Your task to perform on an android device: Clear all items from cart on costco.com. Add "usb-c to usb-a" to the cart on costco.com Image 0: 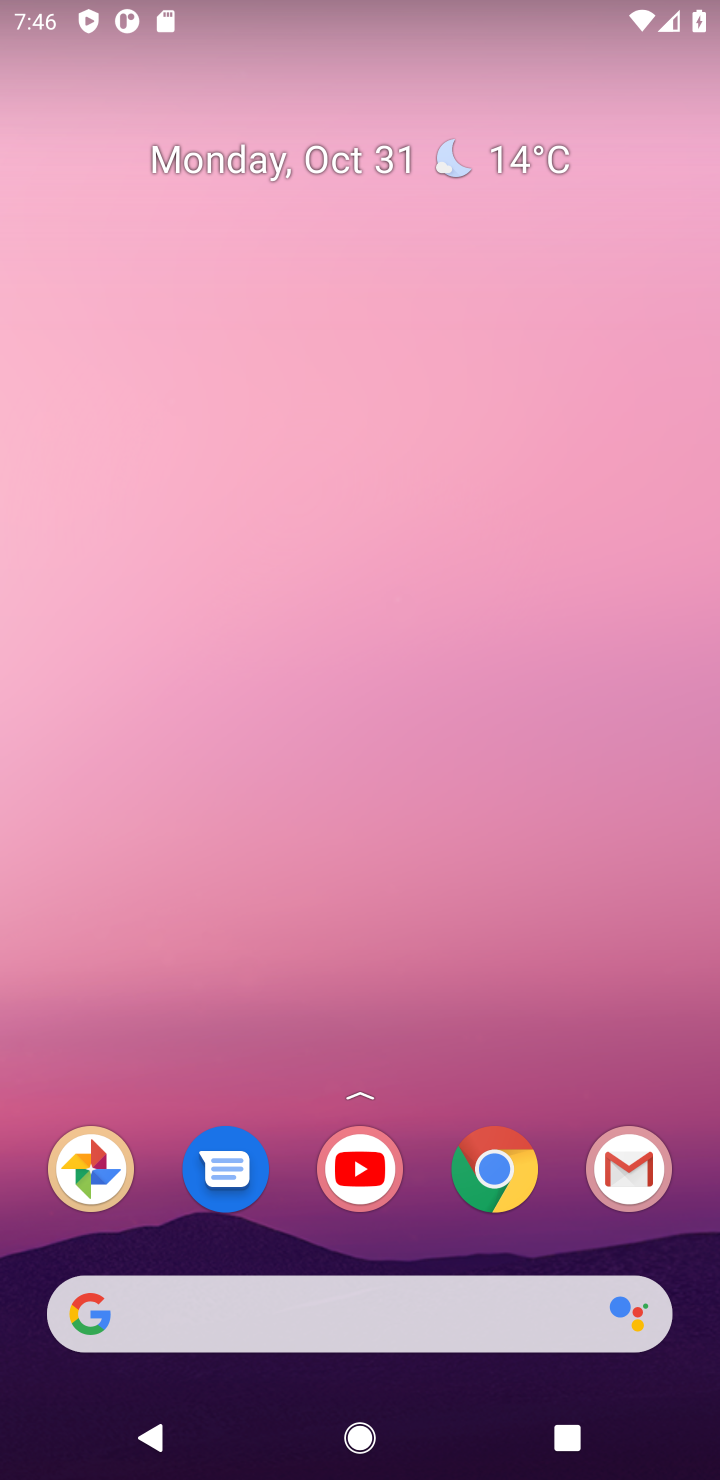
Step 0: drag from (293, 1246) to (314, 381)
Your task to perform on an android device: Clear all items from cart on costco.com. Add "usb-c to usb-a" to the cart on costco.com Image 1: 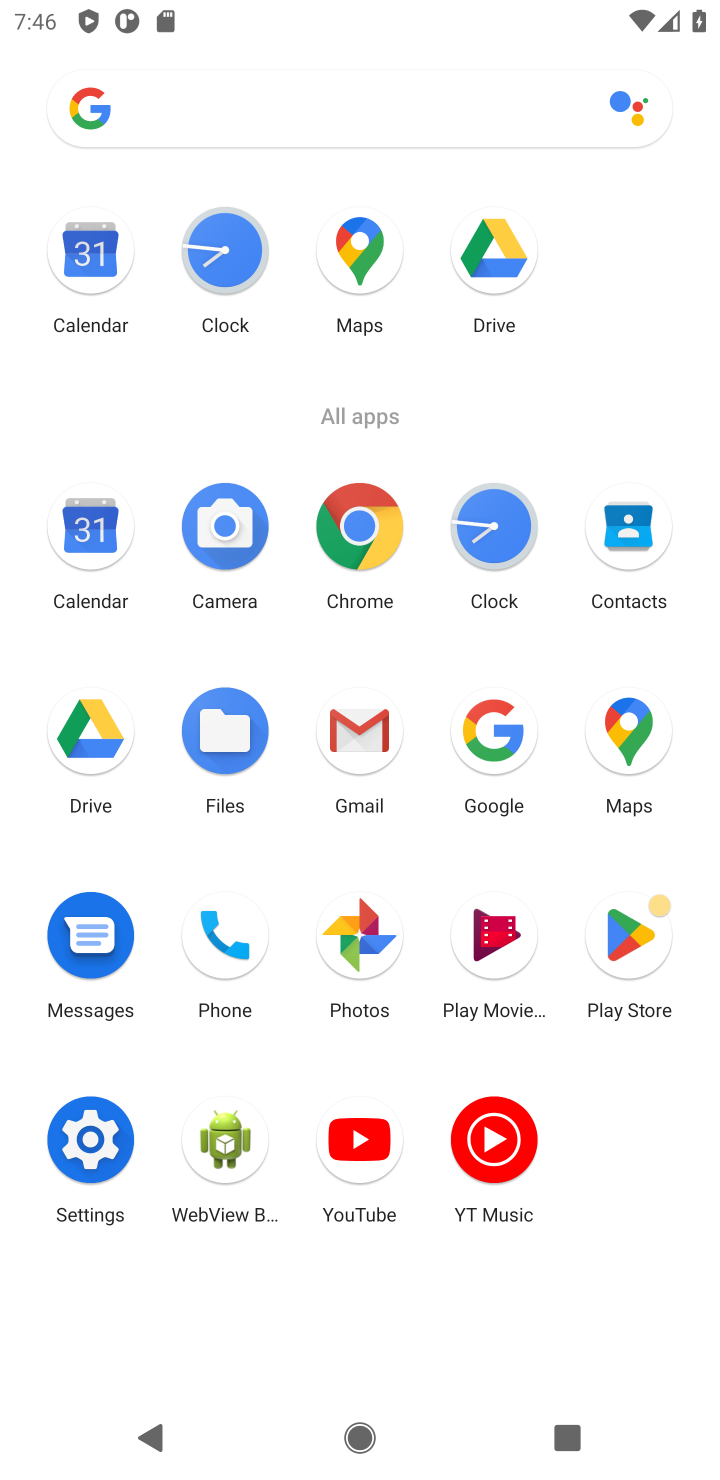
Step 1: click (485, 722)
Your task to perform on an android device: Clear all items from cart on costco.com. Add "usb-c to usb-a" to the cart on costco.com Image 2: 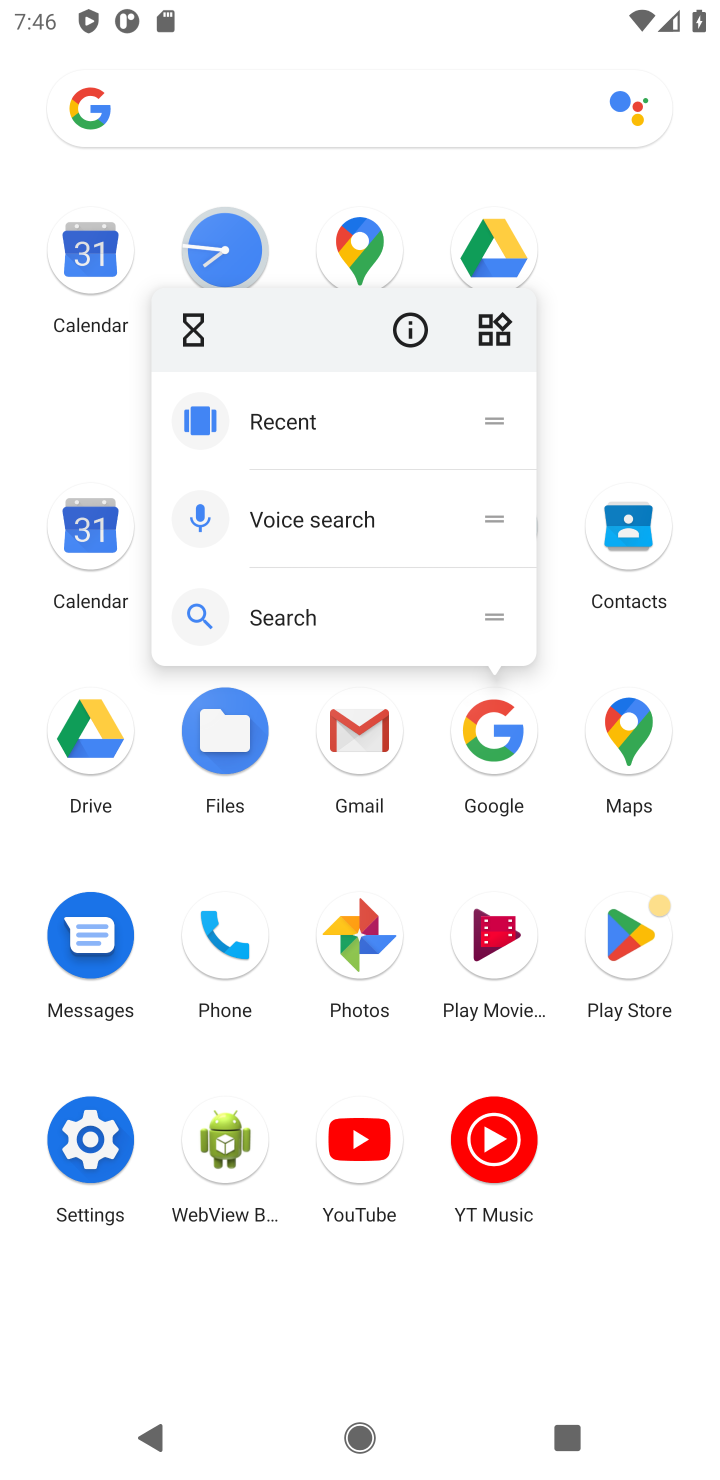
Step 2: click (485, 722)
Your task to perform on an android device: Clear all items from cart on costco.com. Add "usb-c to usb-a" to the cart on costco.com Image 3: 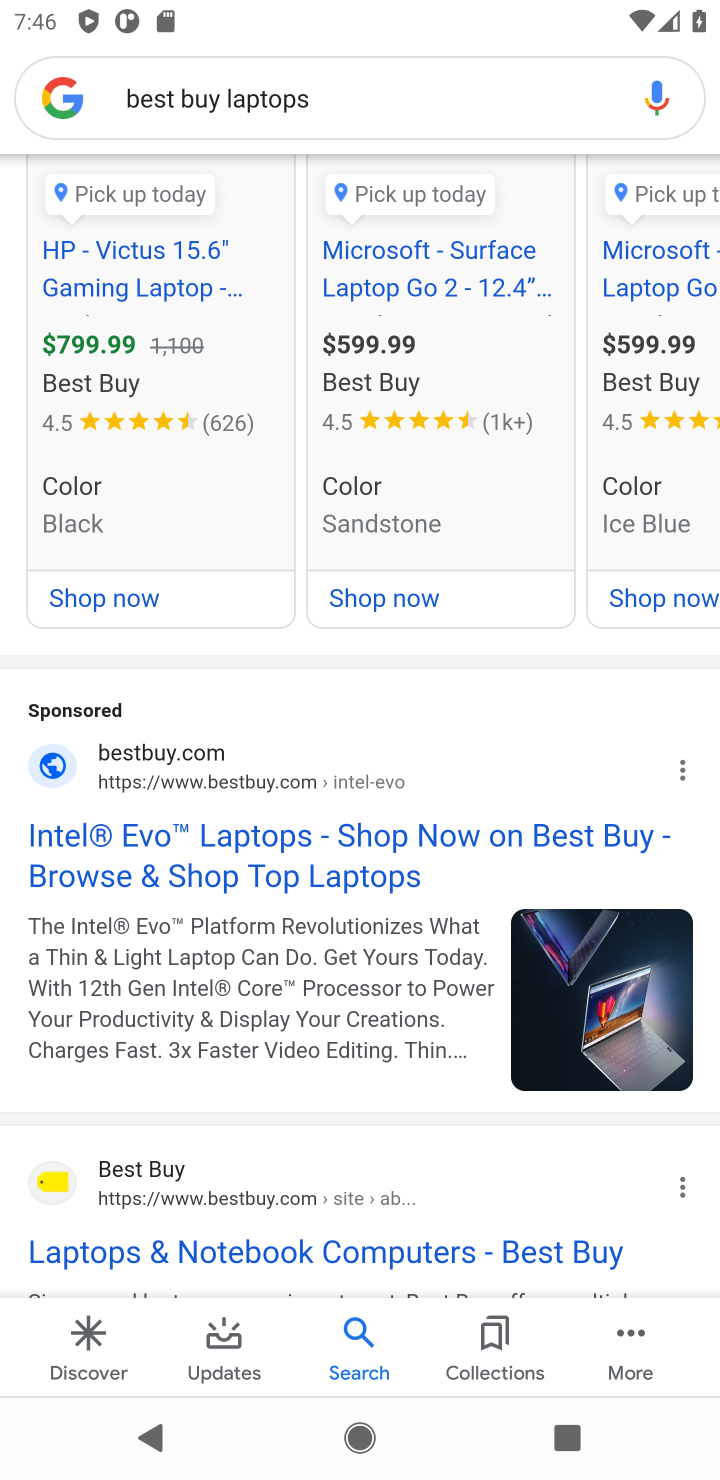
Step 3: click (319, 80)
Your task to perform on an android device: Clear all items from cart on costco.com. Add "usb-c to usb-a" to the cart on costco.com Image 4: 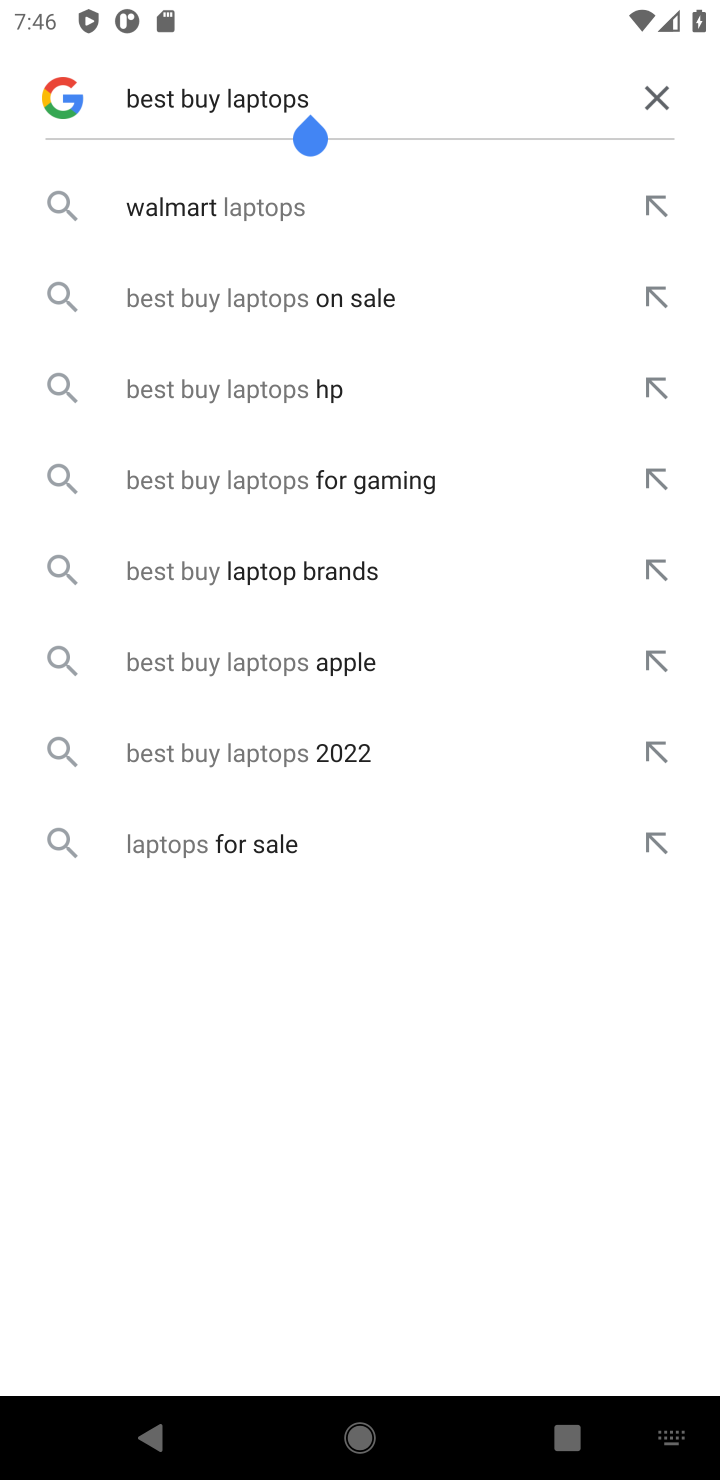
Step 4: click (644, 82)
Your task to perform on an android device: Clear all items from cart on costco.com. Add "usb-c to usb-a" to the cart on costco.com Image 5: 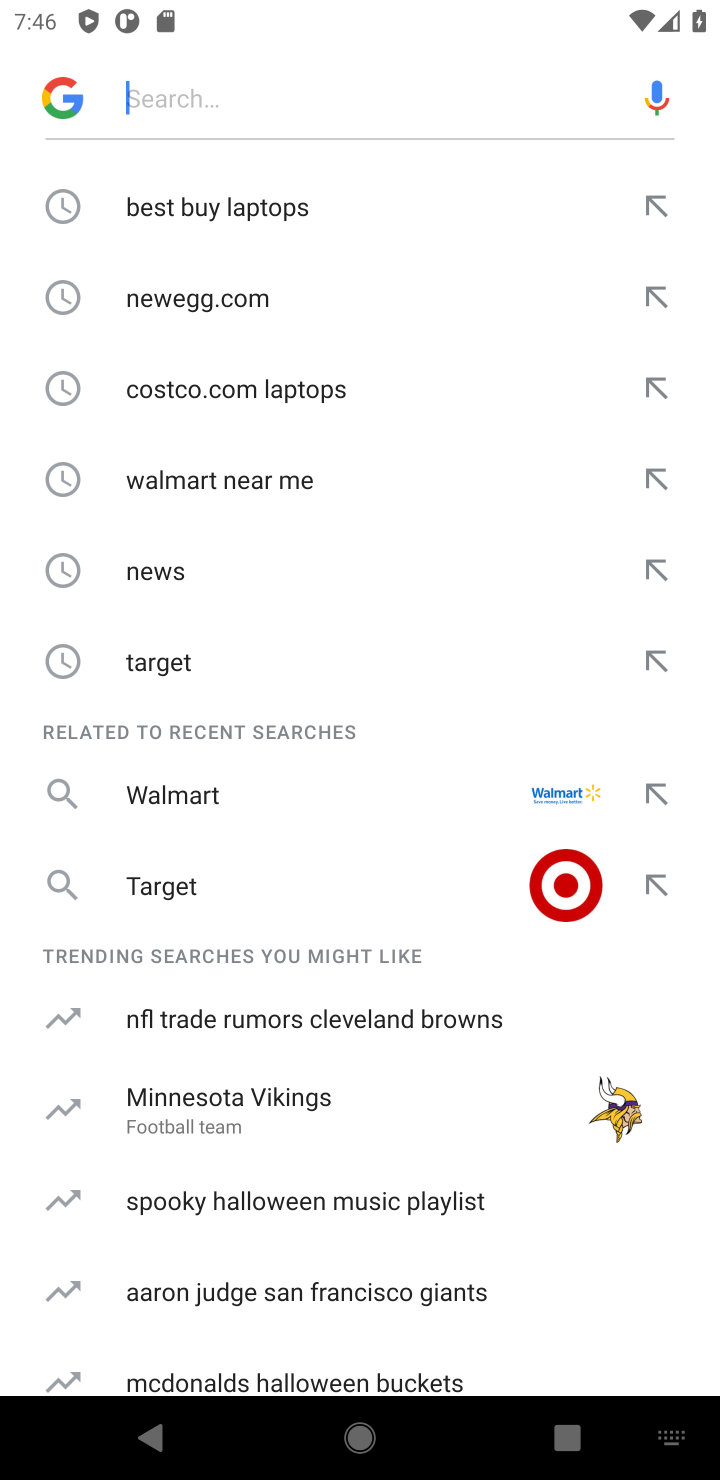
Step 5: click (226, 404)
Your task to perform on an android device: Clear all items from cart on costco.com. Add "usb-c to usb-a" to the cart on costco.com Image 6: 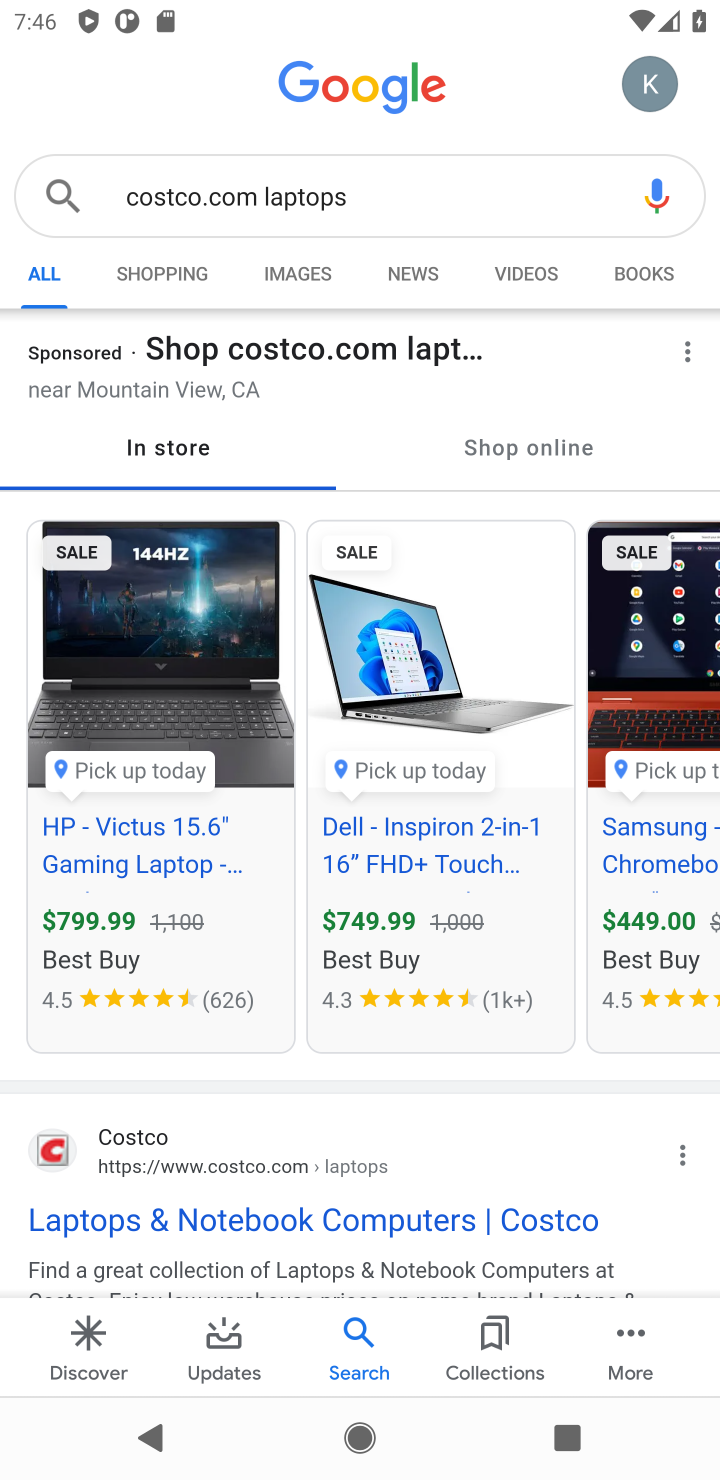
Step 6: click (356, 163)
Your task to perform on an android device: Clear all items from cart on costco.com. Add "usb-c to usb-a" to the cart on costco.com Image 7: 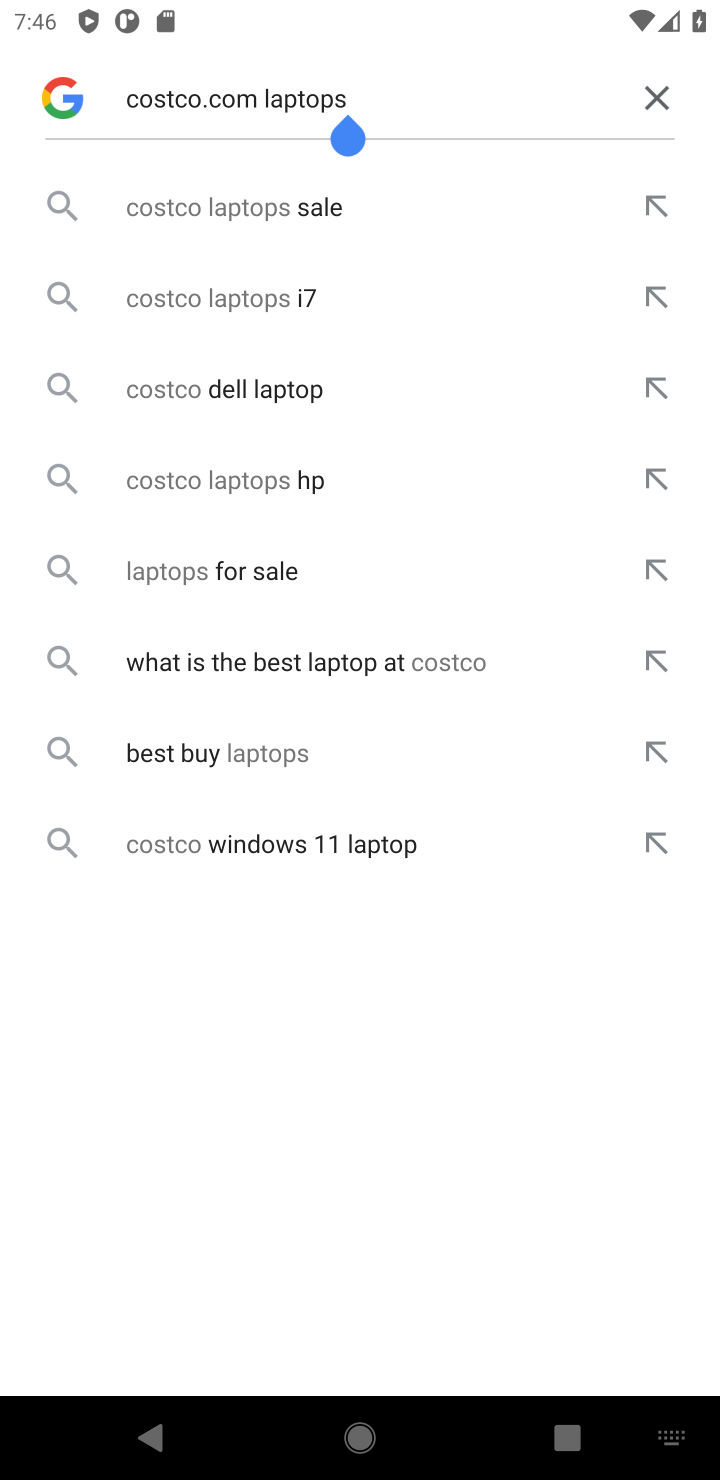
Step 7: click (653, 103)
Your task to perform on an android device: Clear all items from cart on costco.com. Add "usb-c to usb-a" to the cart on costco.com Image 8: 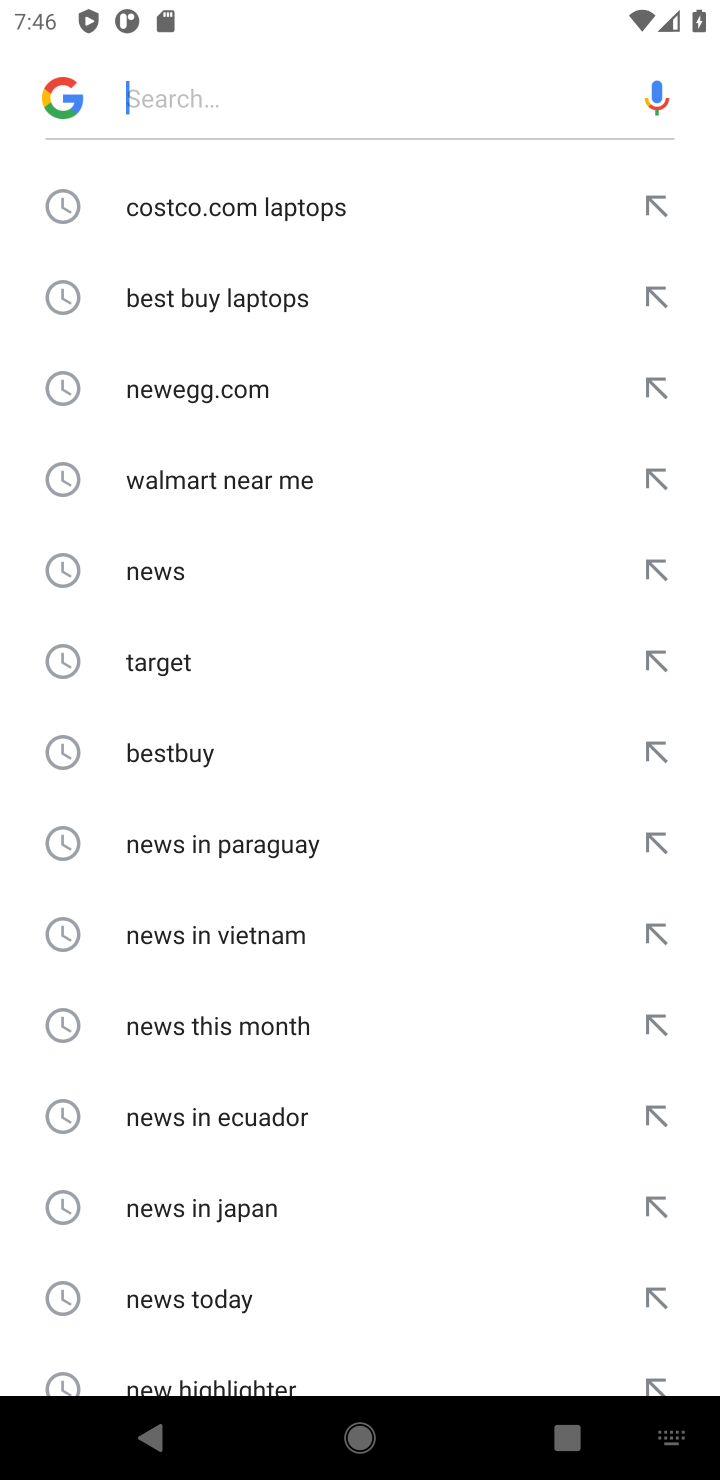
Step 8: click (236, 206)
Your task to perform on an android device: Clear all items from cart on costco.com. Add "usb-c to usb-a" to the cart on costco.com Image 9: 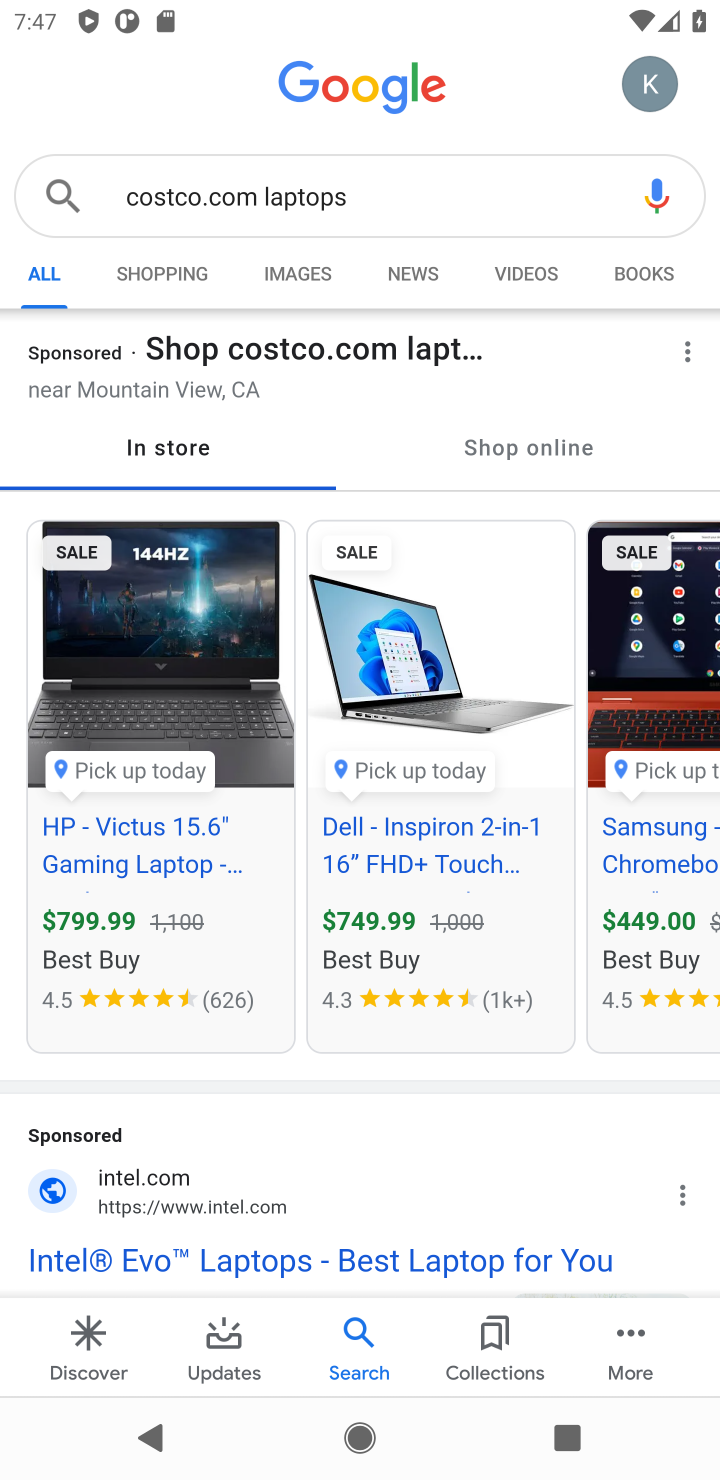
Step 9: drag from (293, 1092) to (548, 224)
Your task to perform on an android device: Clear all items from cart on costco.com. Add "usb-c to usb-a" to the cart on costco.com Image 10: 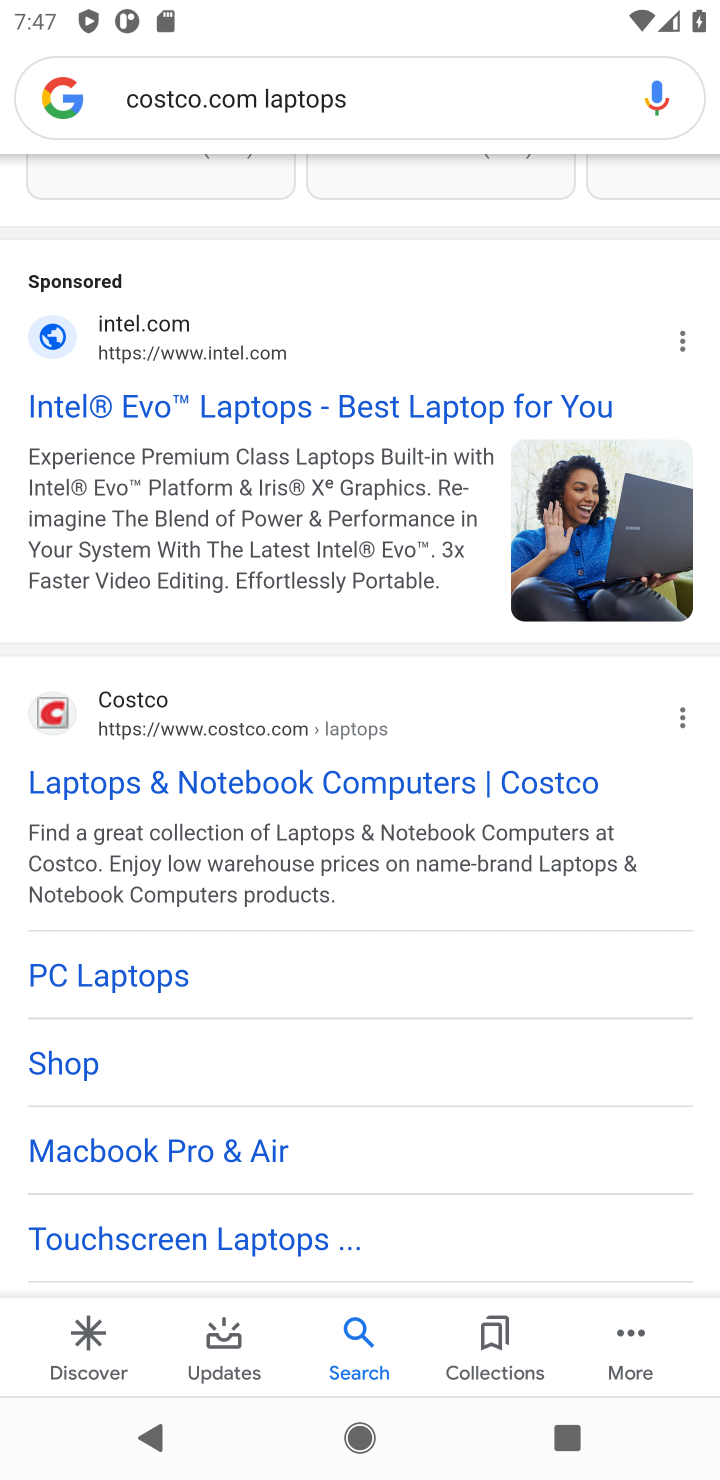
Step 10: click (53, 715)
Your task to perform on an android device: Clear all items from cart on costco.com. Add "usb-c to usb-a" to the cart on costco.com Image 11: 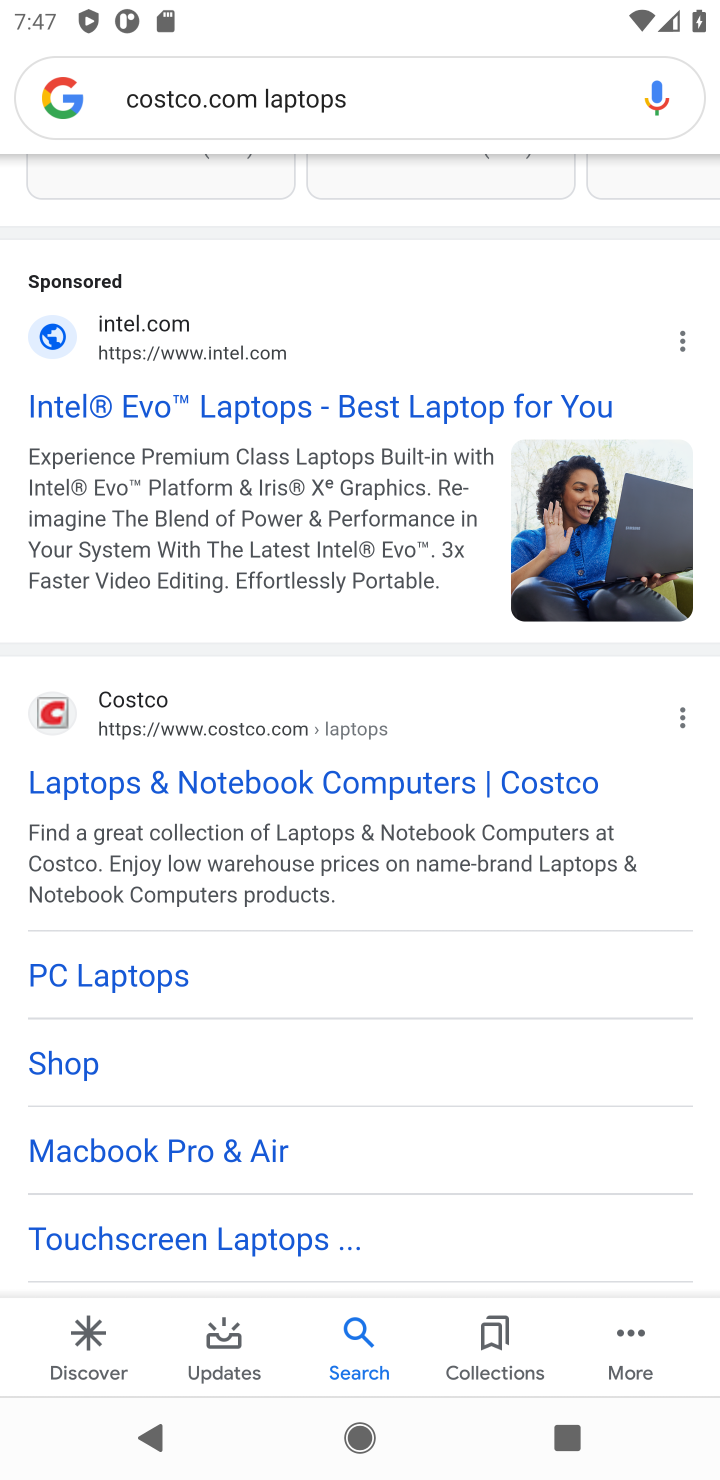
Step 11: click (53, 715)
Your task to perform on an android device: Clear all items from cart on costco.com. Add "usb-c to usb-a" to the cart on costco.com Image 12: 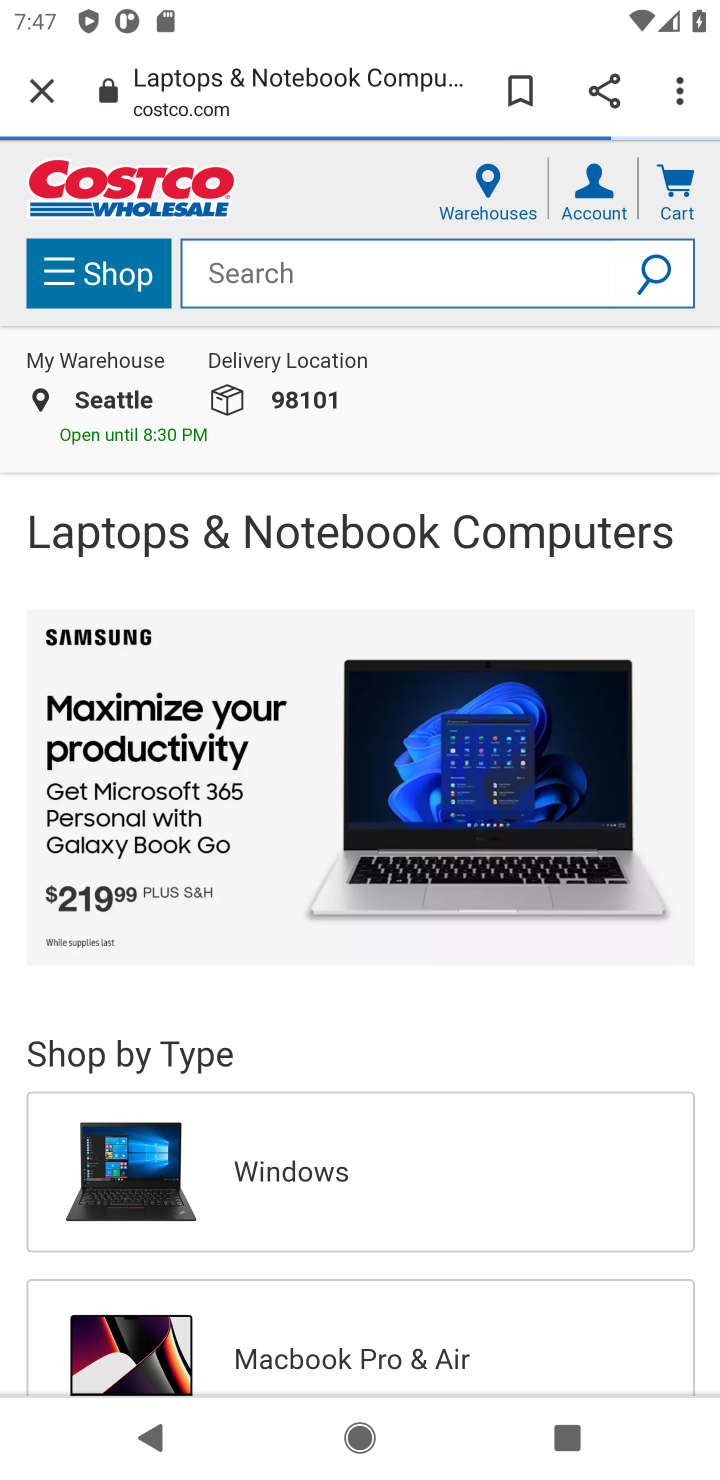
Step 12: click (383, 249)
Your task to perform on an android device: Clear all items from cart on costco.com. Add "usb-c to usb-a" to the cart on costco.com Image 13: 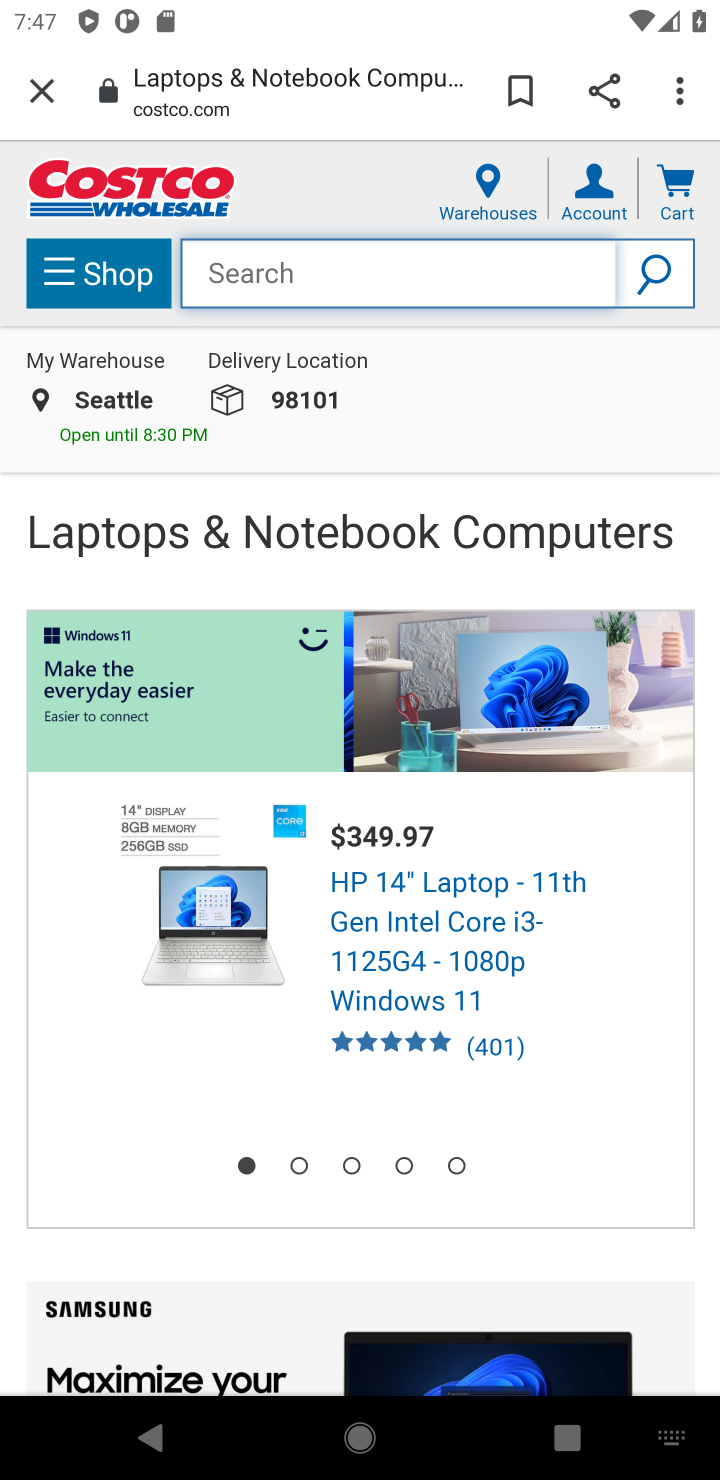
Step 13: click (396, 272)
Your task to perform on an android device: Clear all items from cart on costco.com. Add "usb-c to usb-a" to the cart on costco.com Image 14: 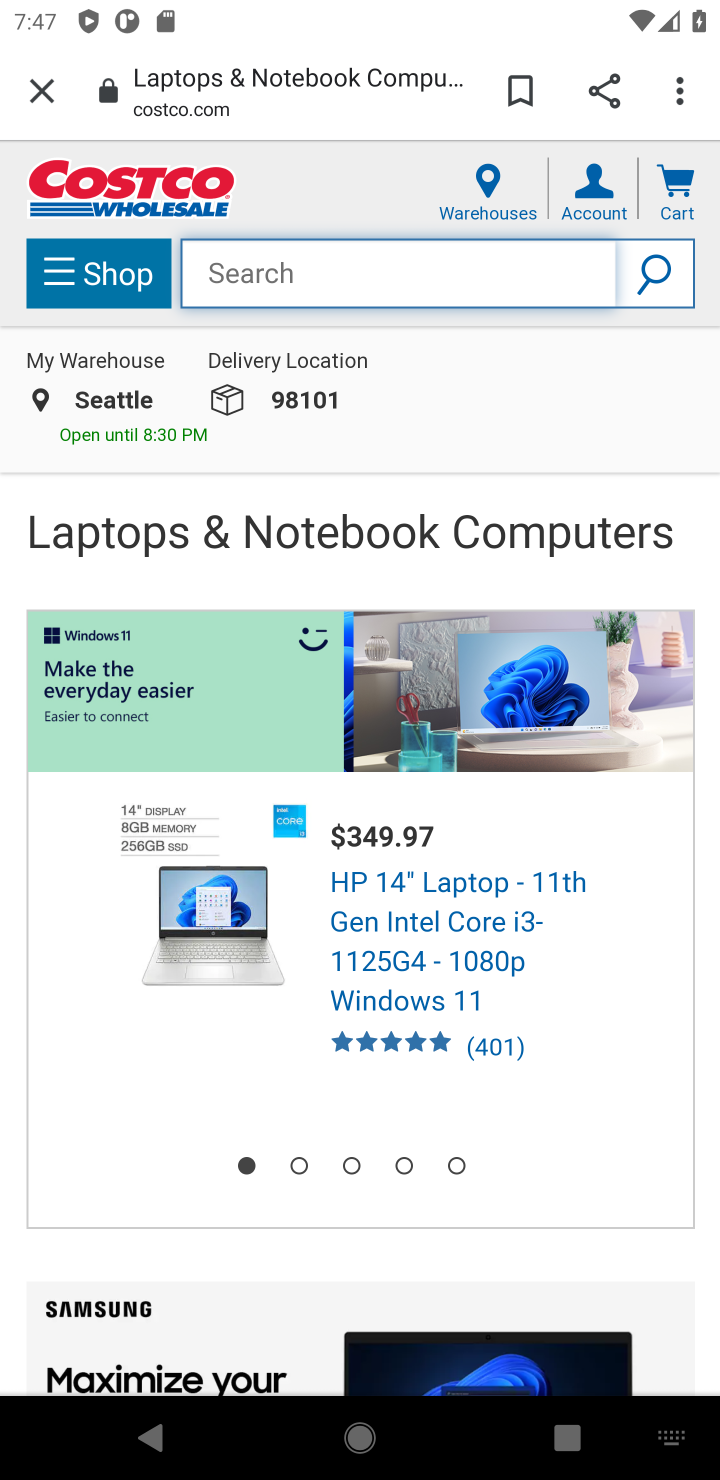
Step 14: type ""usb-c to usb-a "
Your task to perform on an android device: Clear all items from cart on costco.com. Add "usb-c to usb-a" to the cart on costco.com Image 15: 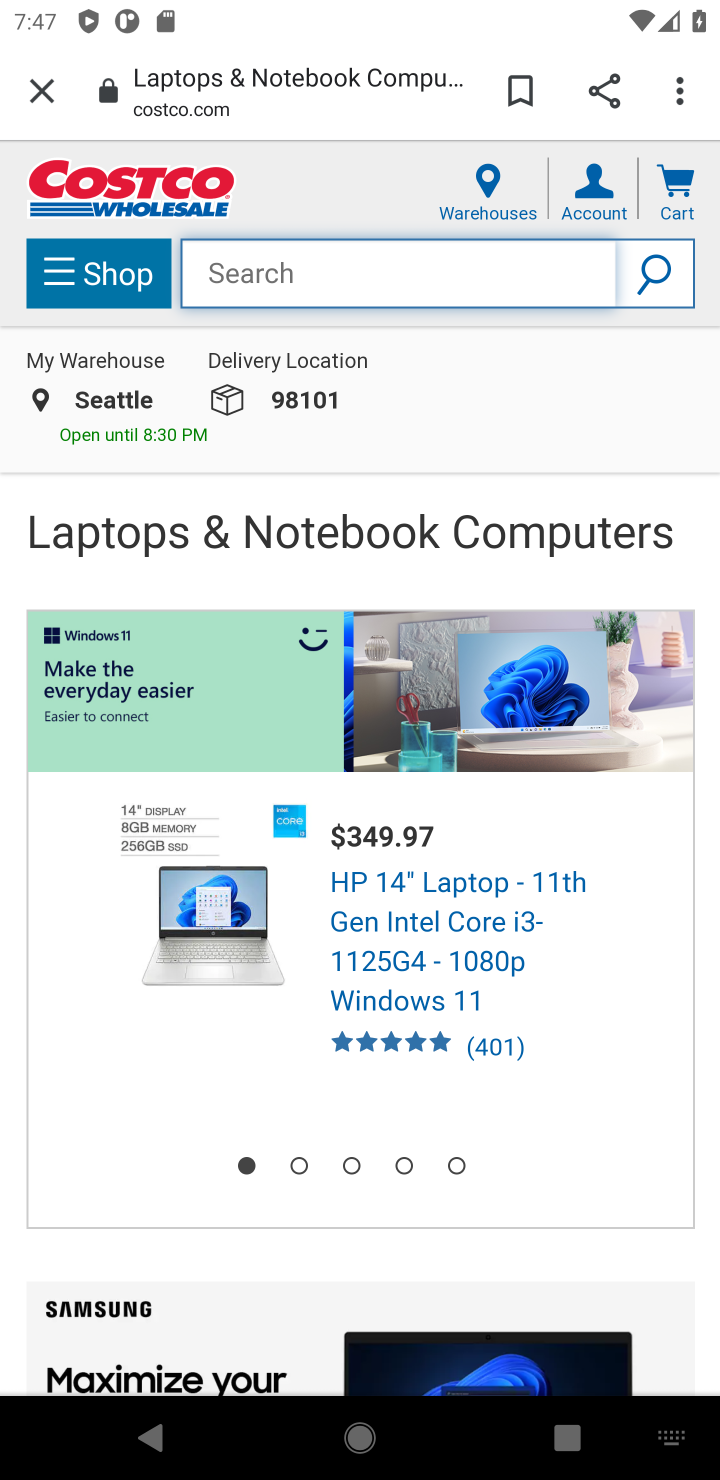
Step 15: click (419, 255)
Your task to perform on an android device: Clear all items from cart on costco.com. Add "usb-c to usb-a" to the cart on costco.com Image 16: 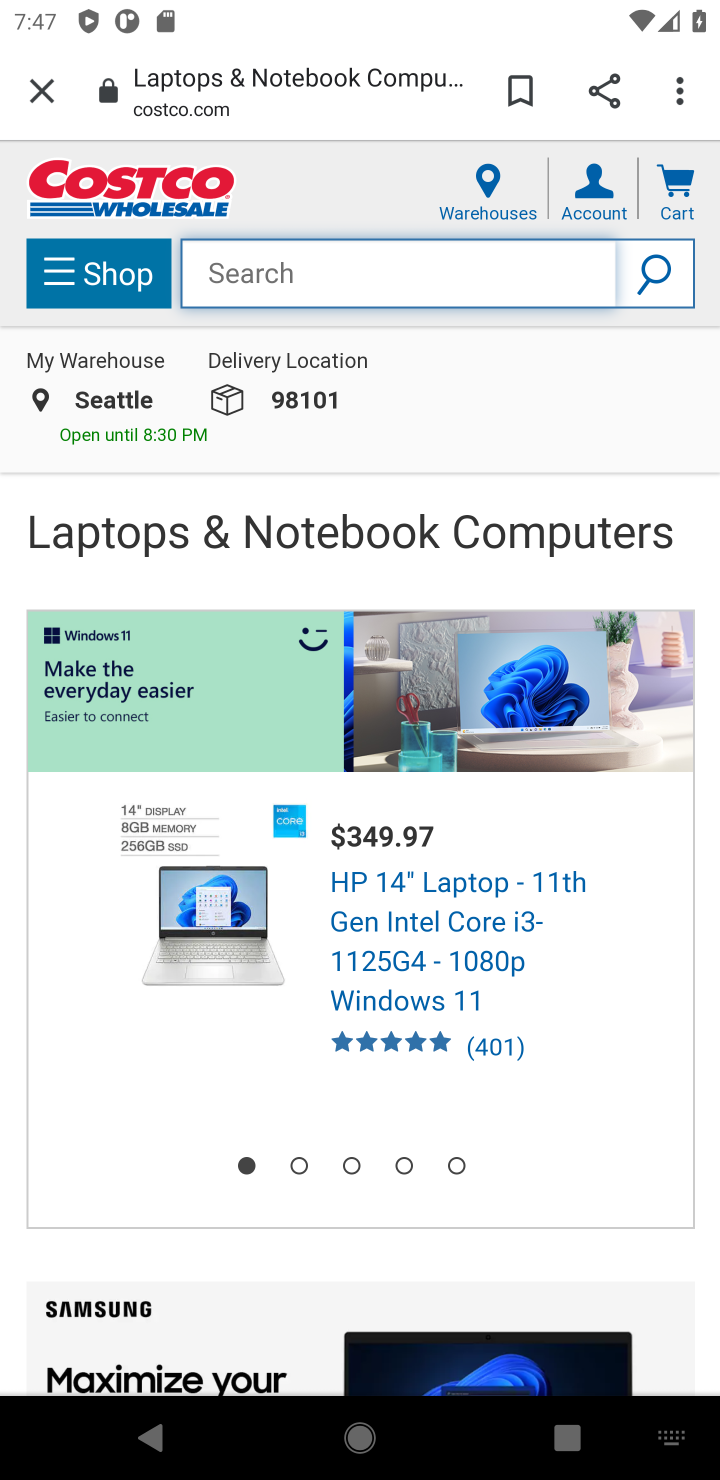
Step 16: type "usb-c to usb-a "
Your task to perform on an android device: Clear all items from cart on costco.com. Add "usb-c to usb-a" to the cart on costco.com Image 17: 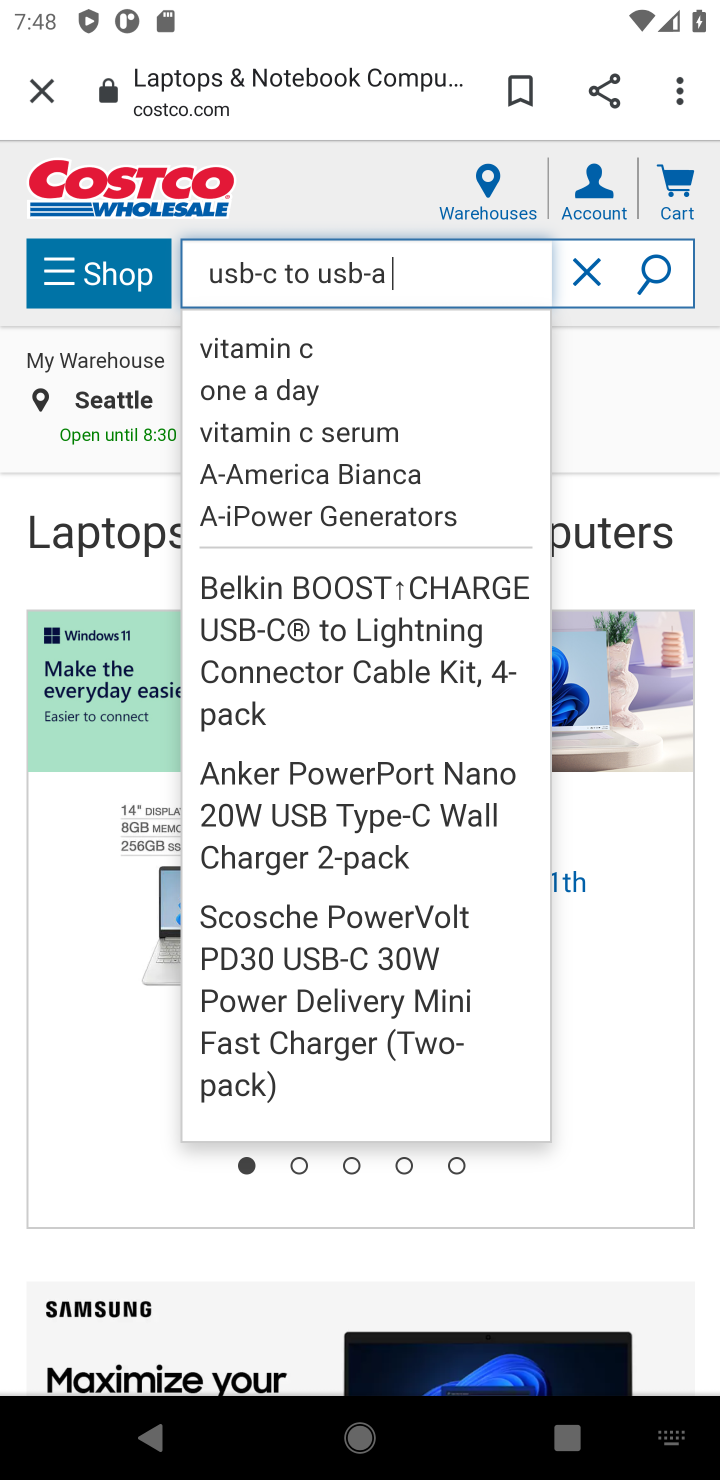
Step 17: drag from (319, 878) to (355, 388)
Your task to perform on an android device: Clear all items from cart on costco.com. Add "usb-c to usb-a" to the cart on costco.com Image 18: 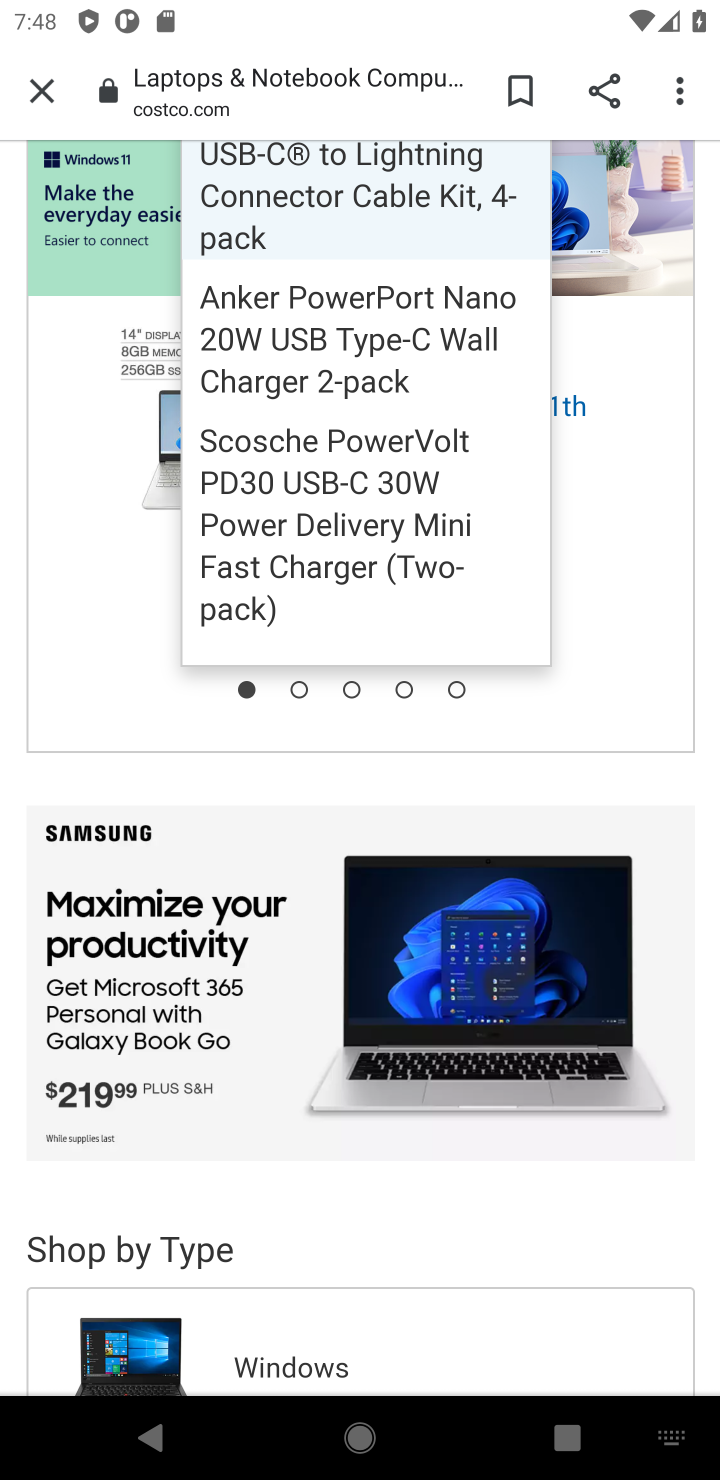
Step 18: click (320, 350)
Your task to perform on an android device: Clear all items from cart on costco.com. Add "usb-c to usb-a" to the cart on costco.com Image 19: 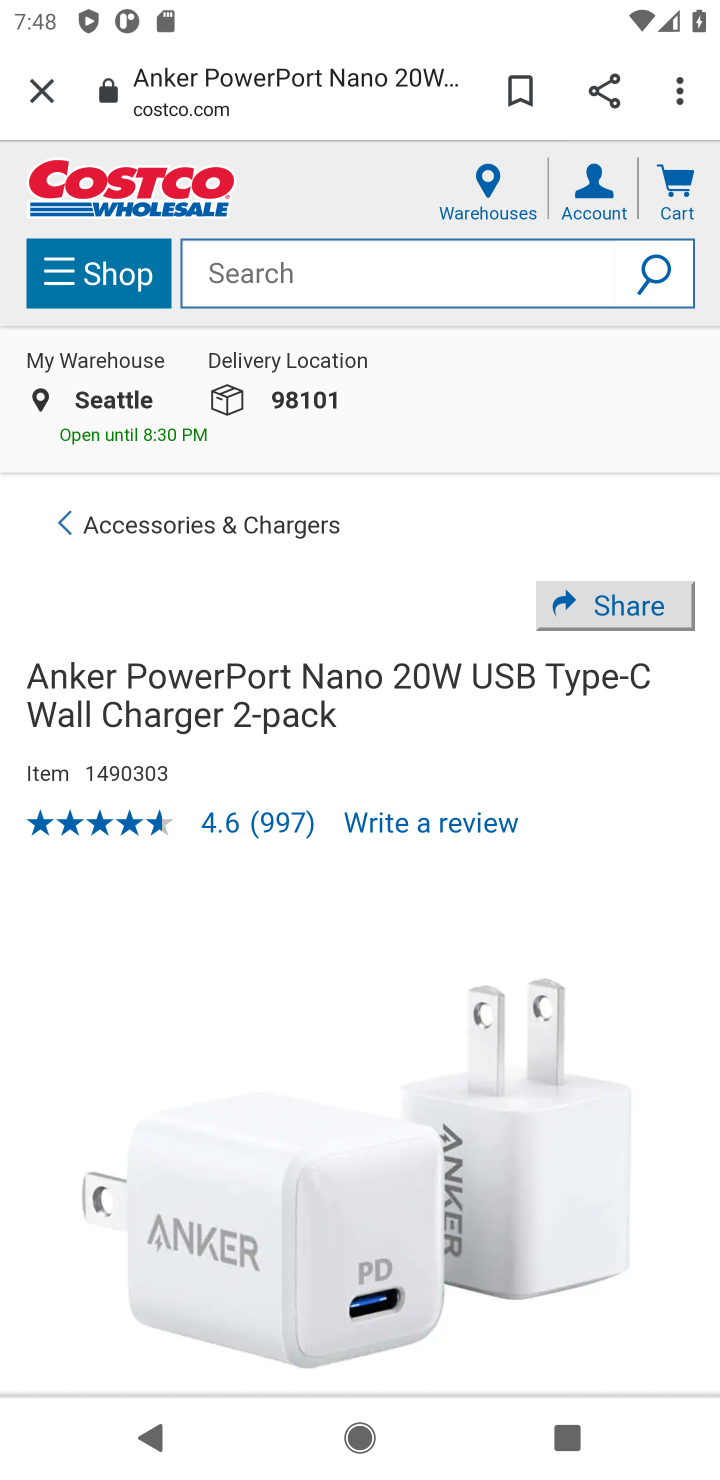
Step 19: drag from (264, 1205) to (565, 412)
Your task to perform on an android device: Clear all items from cart on costco.com. Add "usb-c to usb-a" to the cart on costco.com Image 20: 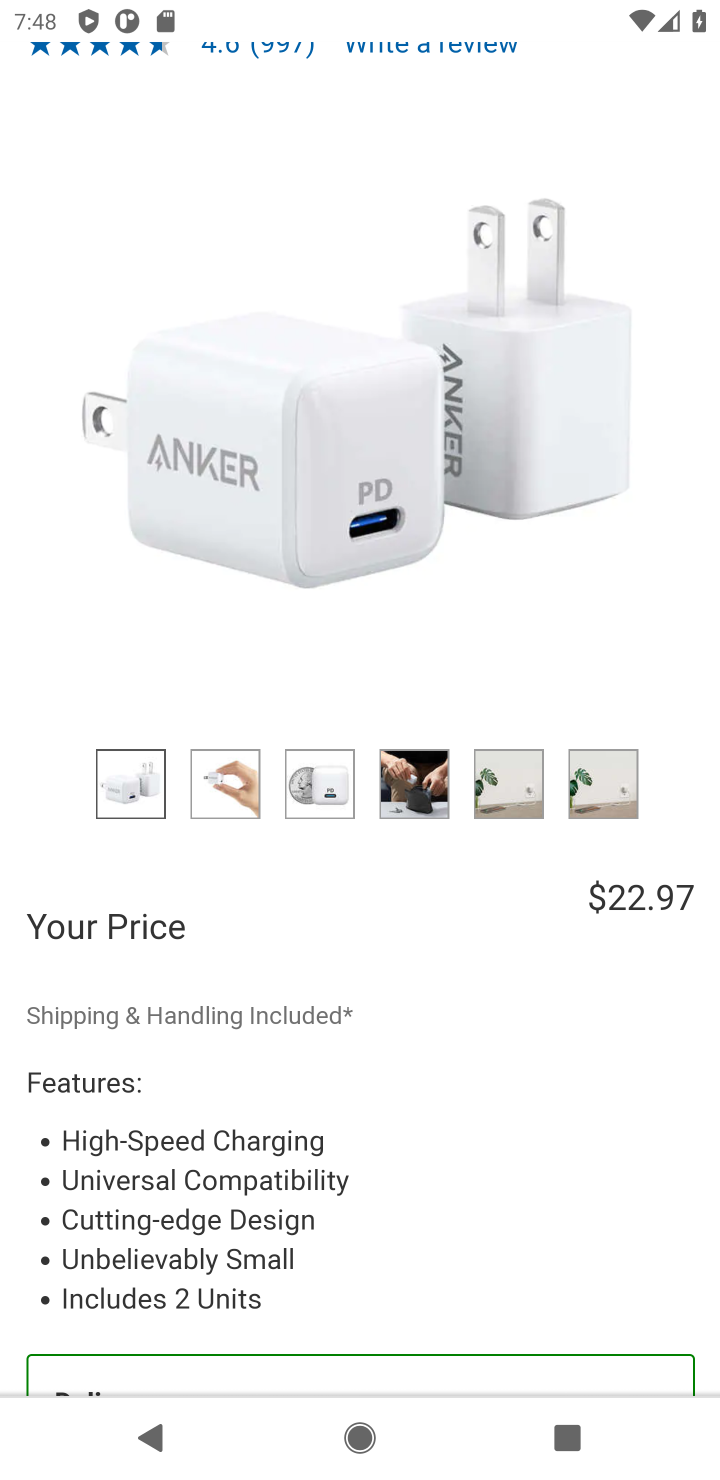
Step 20: drag from (284, 1178) to (364, 316)
Your task to perform on an android device: Clear all items from cart on costco.com. Add "usb-c to usb-a" to the cart on costco.com Image 21: 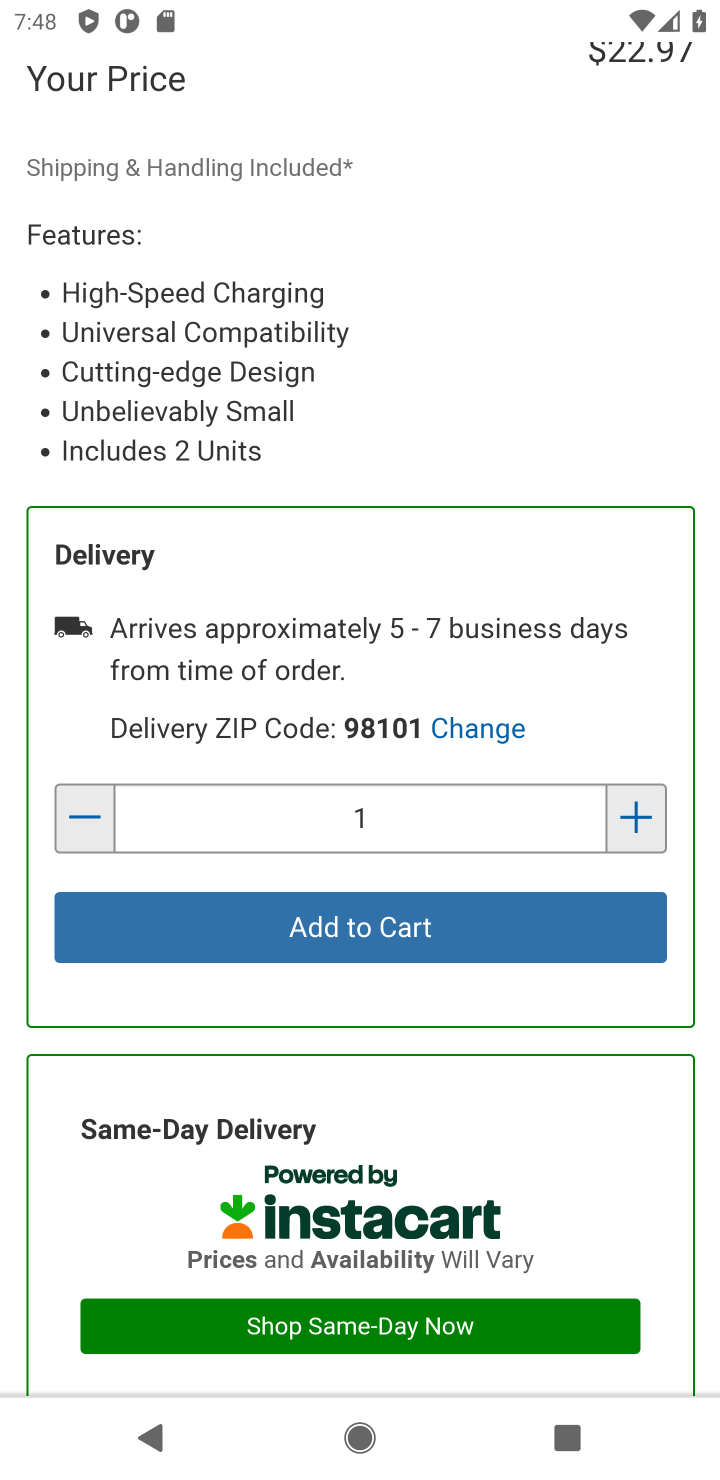
Step 21: click (413, 933)
Your task to perform on an android device: Clear all items from cart on costco.com. Add "usb-c to usb-a" to the cart on costco.com Image 22: 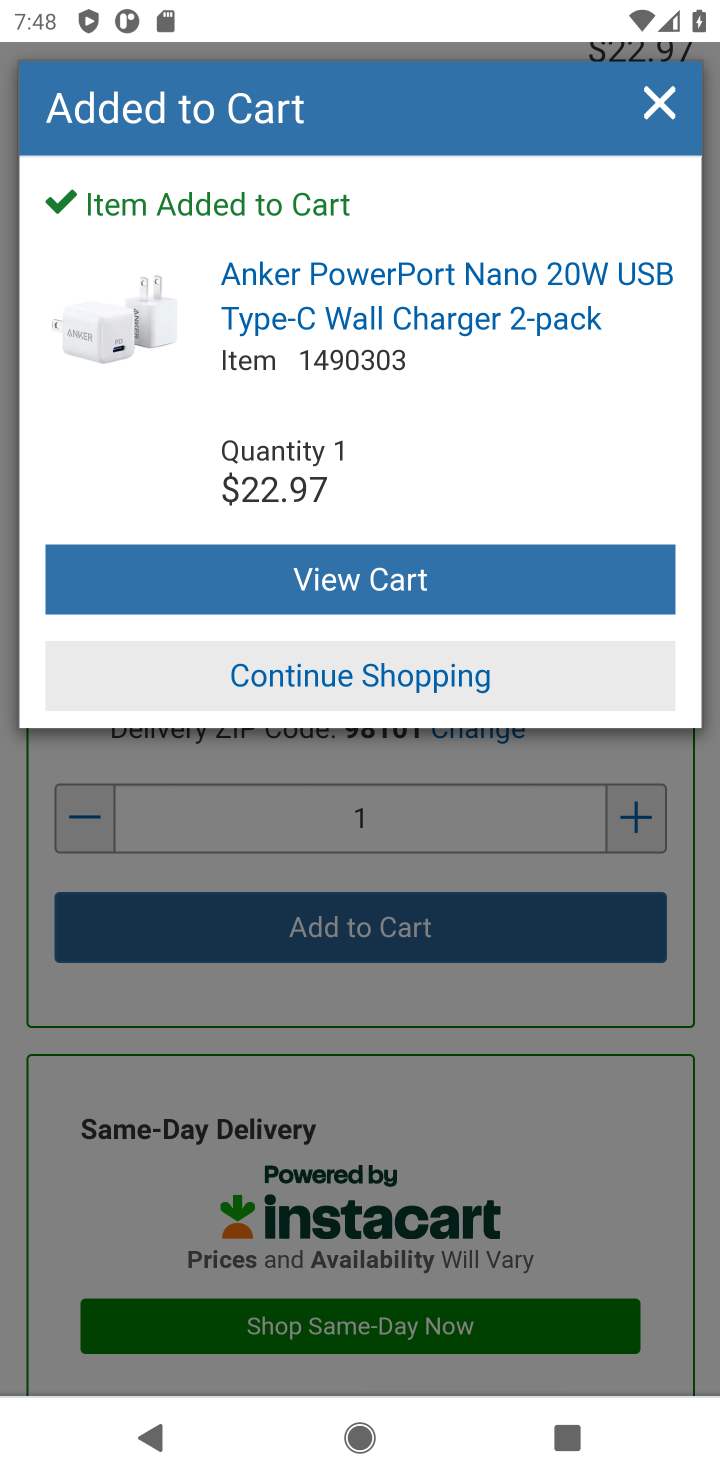
Step 22: click (442, 596)
Your task to perform on an android device: Clear all items from cart on costco.com. Add "usb-c to usb-a" to the cart on costco.com Image 23: 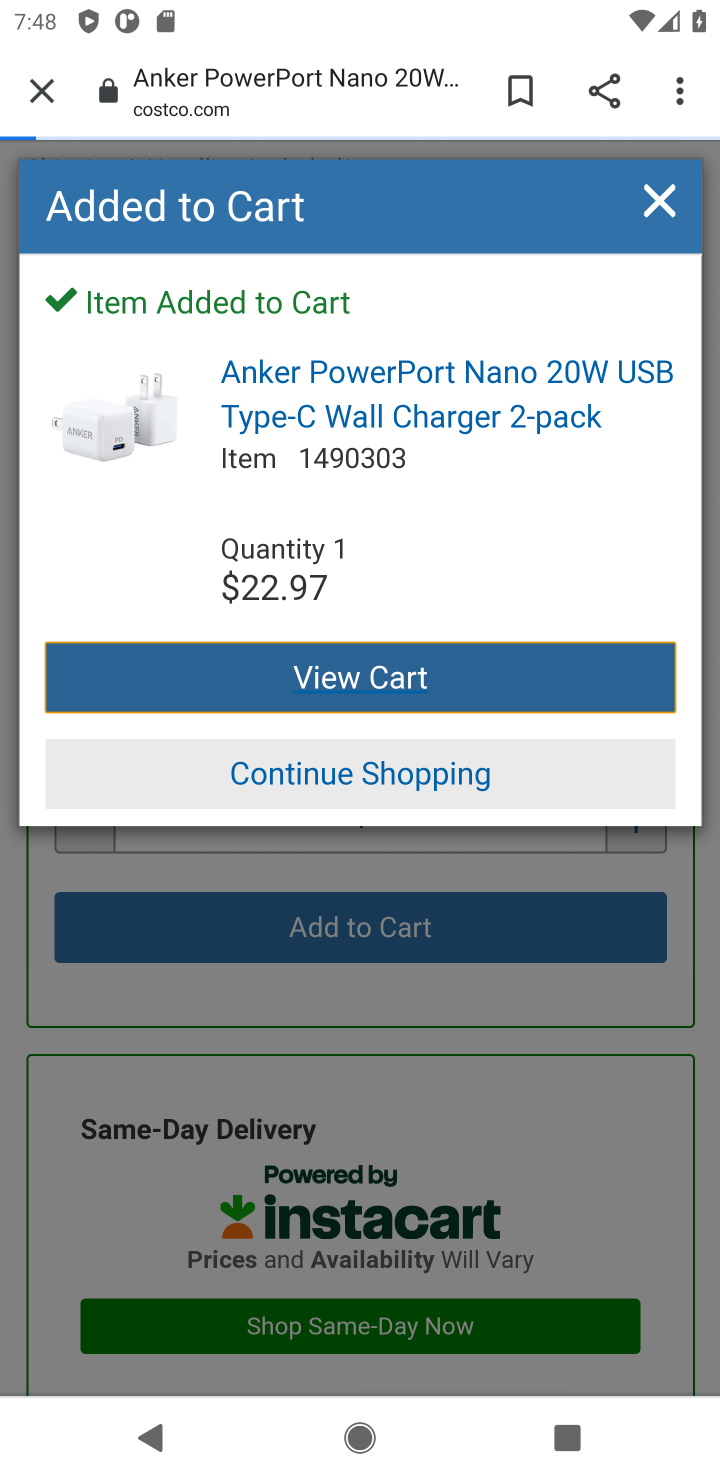
Step 23: task complete